Your task to perform on an android device: turn on the 24-hour format for clock Image 0: 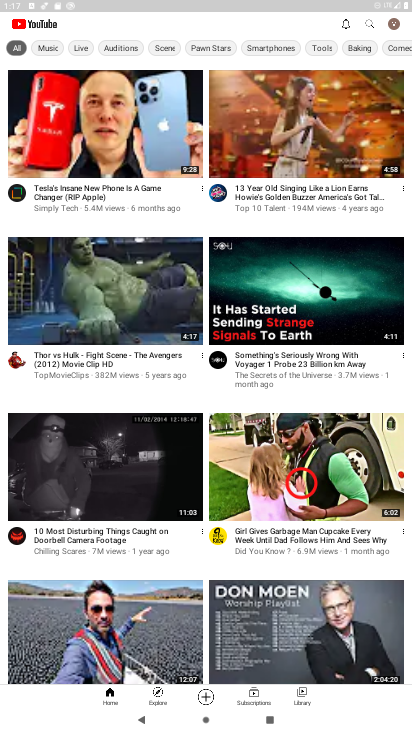
Step 0: press home button
Your task to perform on an android device: turn on the 24-hour format for clock Image 1: 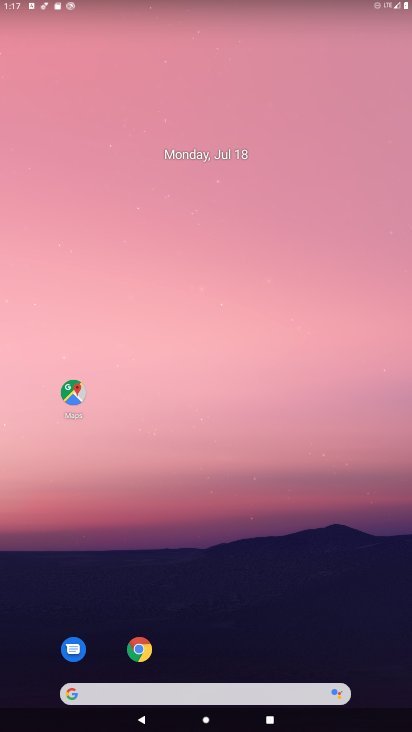
Step 1: drag from (373, 639) to (319, 99)
Your task to perform on an android device: turn on the 24-hour format for clock Image 2: 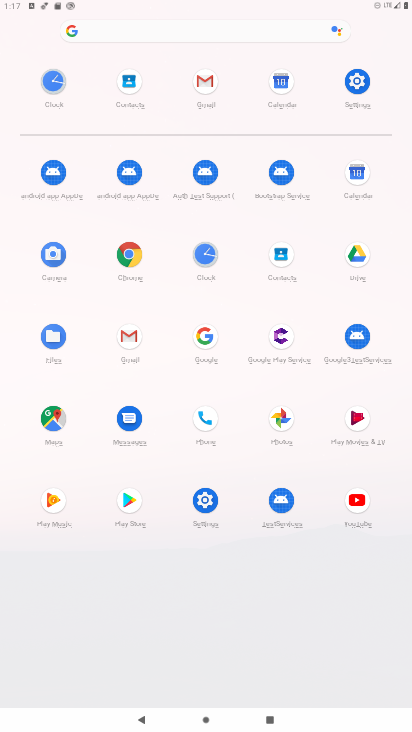
Step 2: click (201, 255)
Your task to perform on an android device: turn on the 24-hour format for clock Image 3: 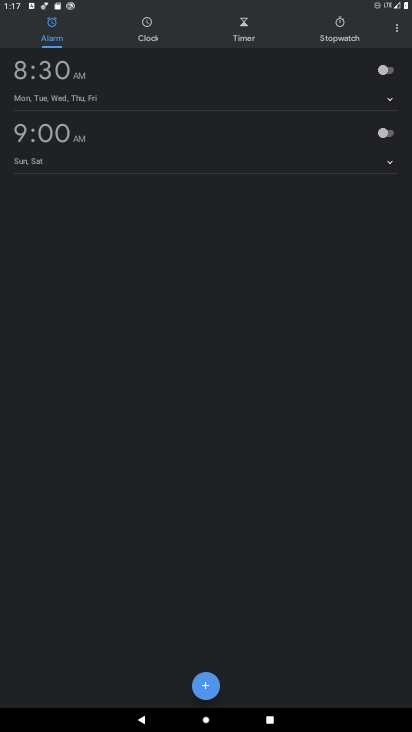
Step 3: click (396, 32)
Your task to perform on an android device: turn on the 24-hour format for clock Image 4: 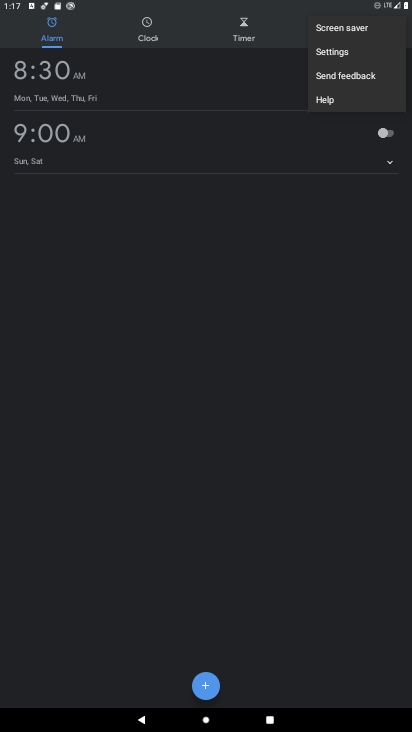
Step 4: click (328, 47)
Your task to perform on an android device: turn on the 24-hour format for clock Image 5: 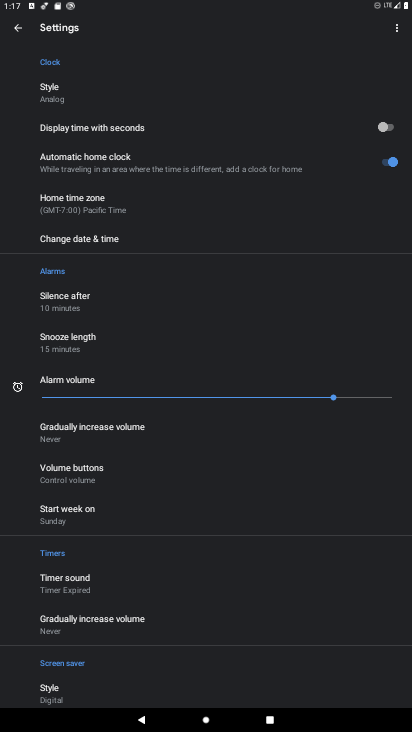
Step 5: click (84, 241)
Your task to perform on an android device: turn on the 24-hour format for clock Image 6: 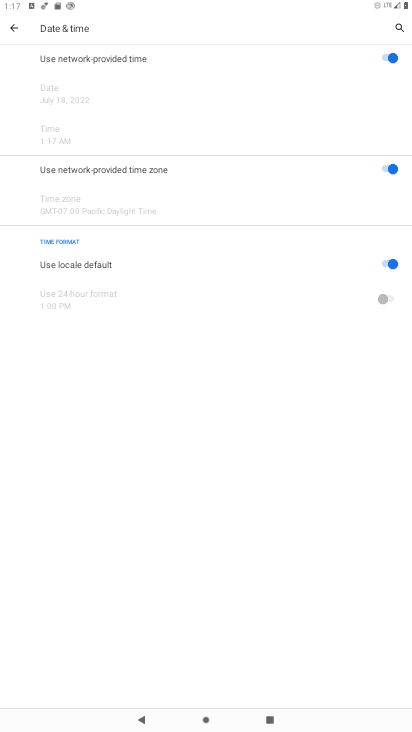
Step 6: click (383, 266)
Your task to perform on an android device: turn on the 24-hour format for clock Image 7: 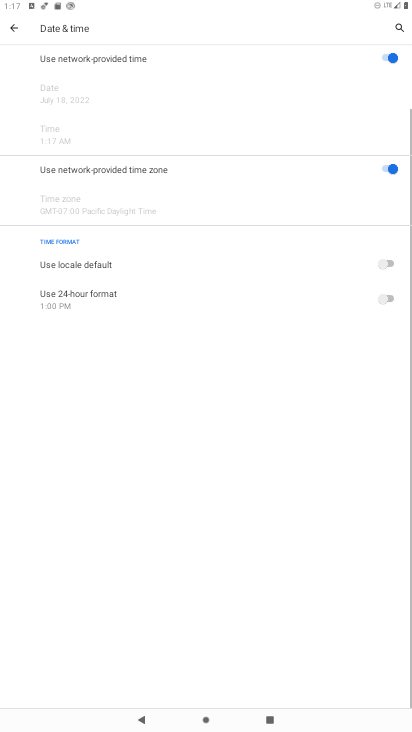
Step 7: click (385, 302)
Your task to perform on an android device: turn on the 24-hour format for clock Image 8: 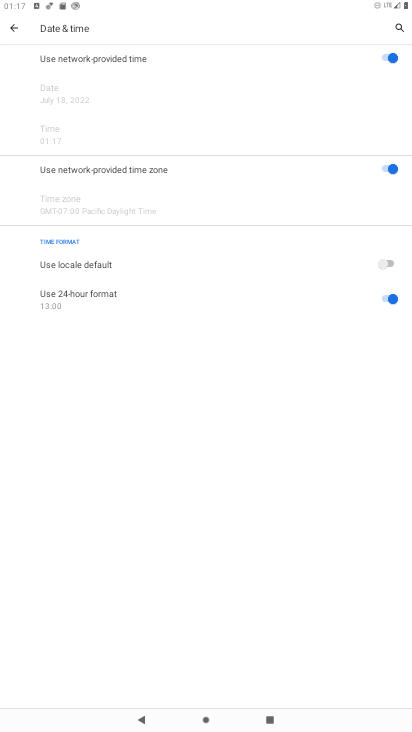
Step 8: task complete